Your task to perform on an android device: see tabs open on other devices in the chrome app Image 0: 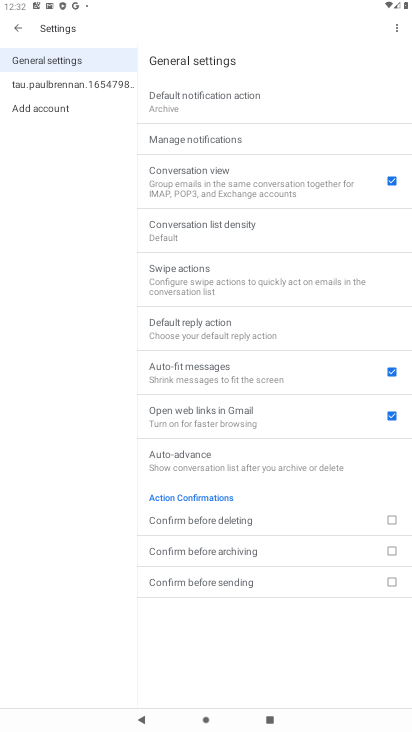
Step 0: press home button
Your task to perform on an android device: see tabs open on other devices in the chrome app Image 1: 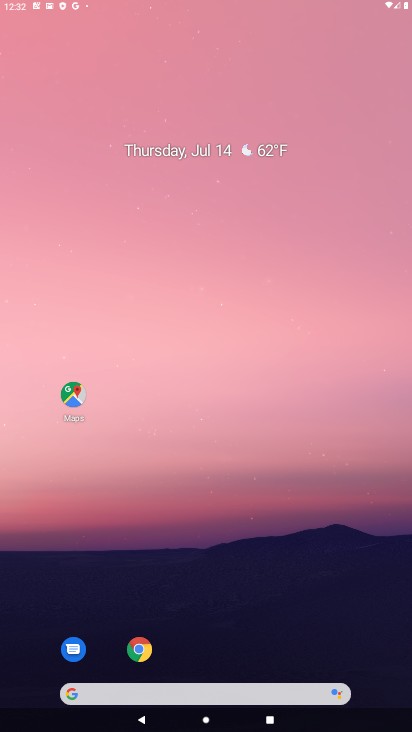
Step 1: drag from (375, 683) to (291, 41)
Your task to perform on an android device: see tabs open on other devices in the chrome app Image 2: 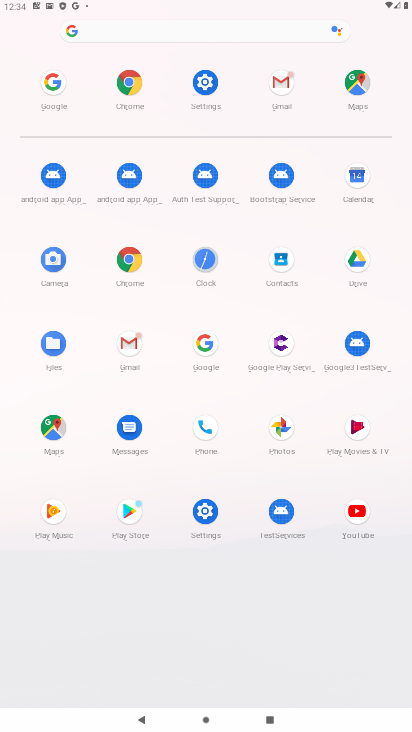
Step 2: click (123, 80)
Your task to perform on an android device: see tabs open on other devices in the chrome app Image 3: 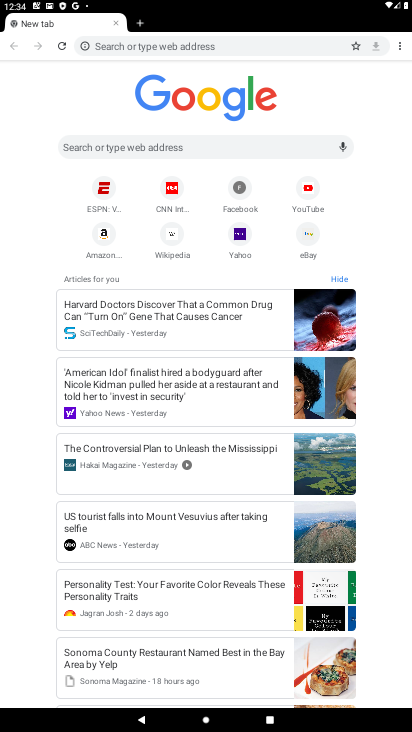
Step 3: task complete